Your task to perform on an android device: open a new tab in the chrome app Image 0: 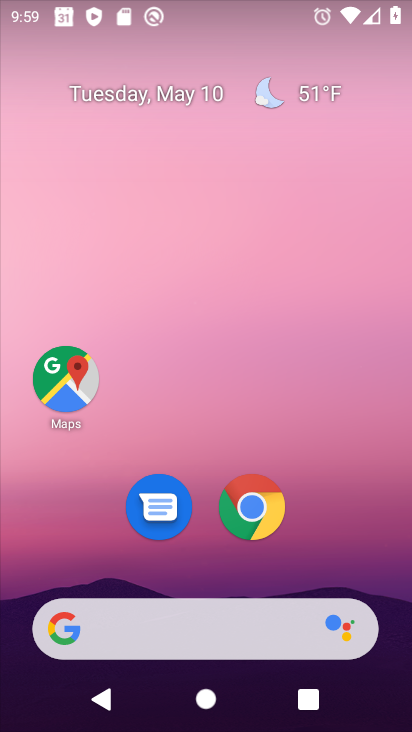
Step 0: click (253, 515)
Your task to perform on an android device: open a new tab in the chrome app Image 1: 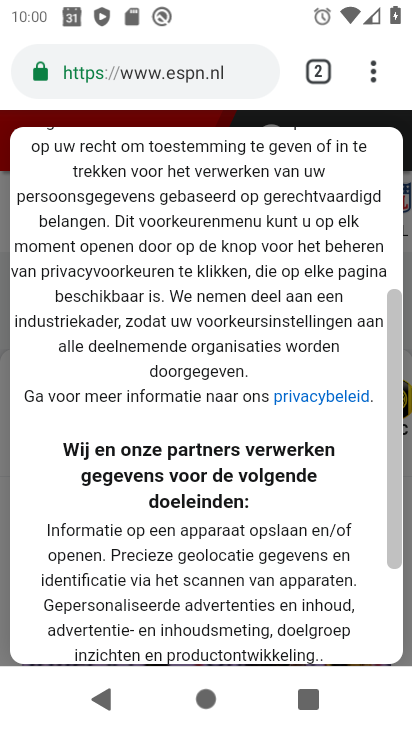
Step 1: click (309, 63)
Your task to perform on an android device: open a new tab in the chrome app Image 2: 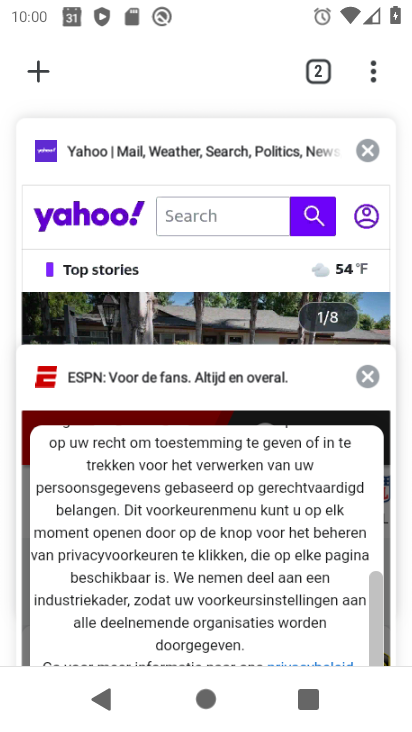
Step 2: click (37, 57)
Your task to perform on an android device: open a new tab in the chrome app Image 3: 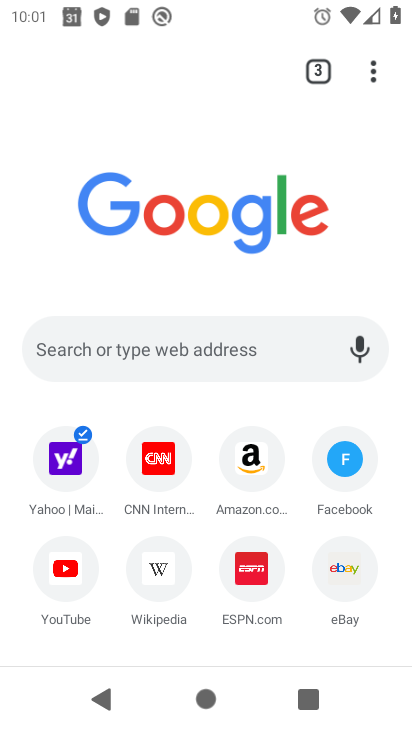
Step 3: task complete